Your task to perform on an android device: Go to Wikipedia Image 0: 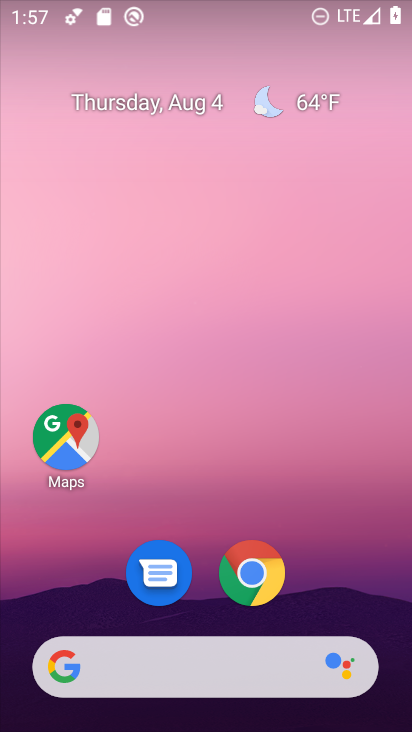
Step 0: drag from (362, 534) to (317, 151)
Your task to perform on an android device: Go to Wikipedia Image 1: 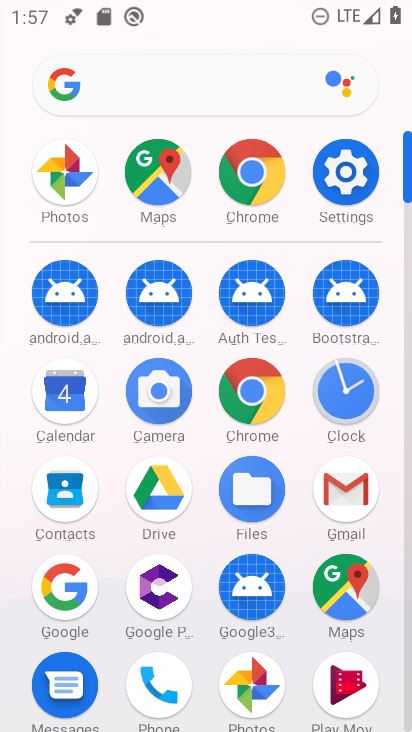
Step 1: click (250, 172)
Your task to perform on an android device: Go to Wikipedia Image 2: 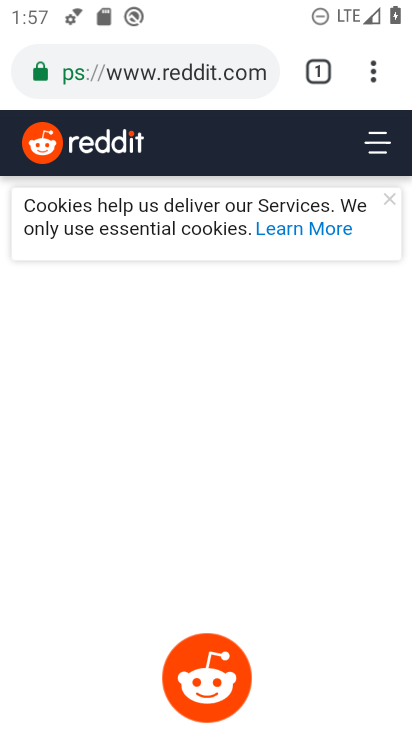
Step 2: click (208, 74)
Your task to perform on an android device: Go to Wikipedia Image 3: 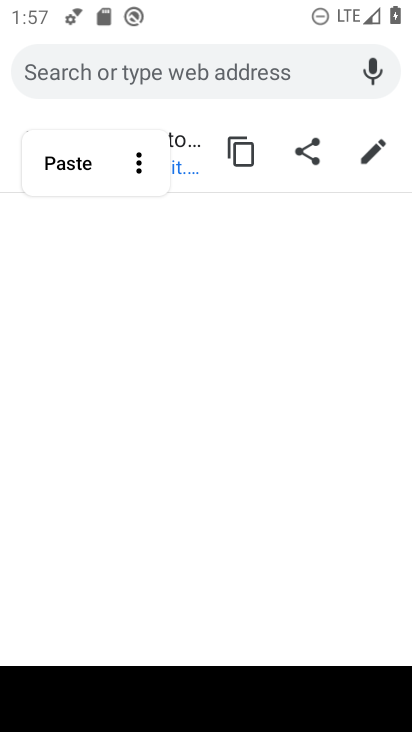
Step 3: type "wikipedia"
Your task to perform on an android device: Go to Wikipedia Image 4: 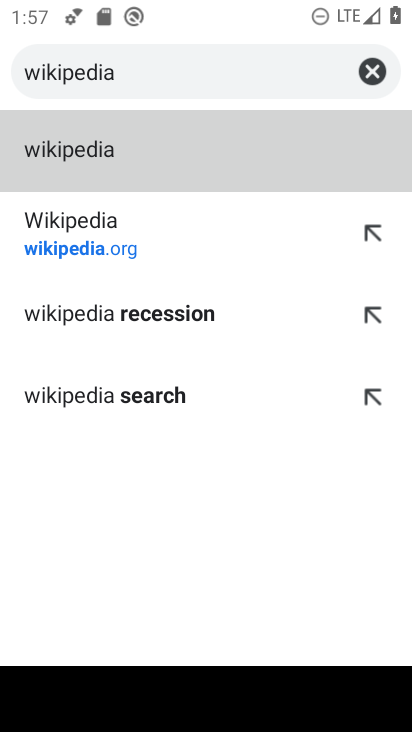
Step 4: click (69, 239)
Your task to perform on an android device: Go to Wikipedia Image 5: 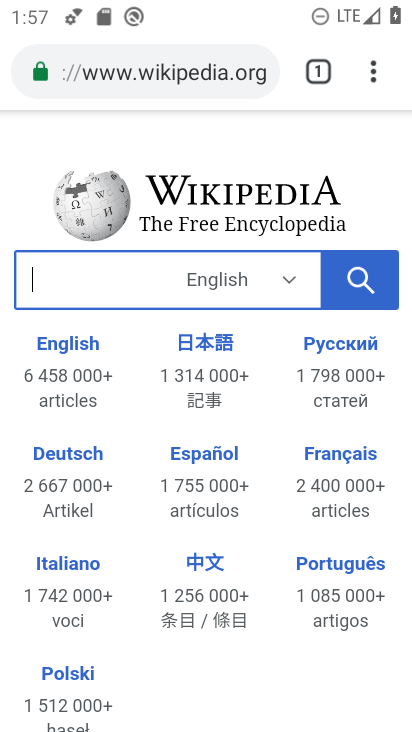
Step 5: task complete